Your task to perform on an android device: Open Google Chrome Image 0: 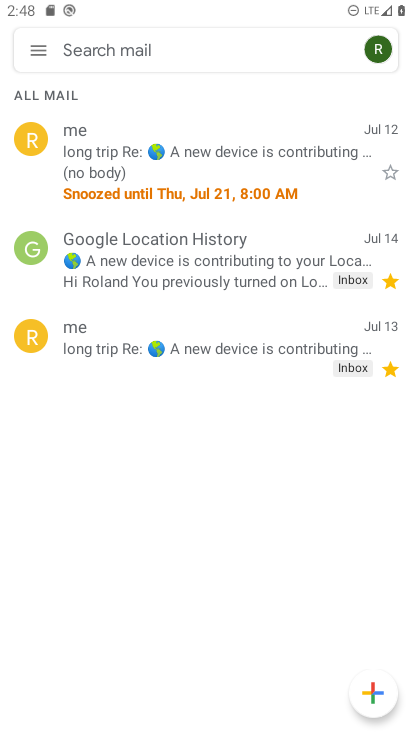
Step 0: press home button
Your task to perform on an android device: Open Google Chrome Image 1: 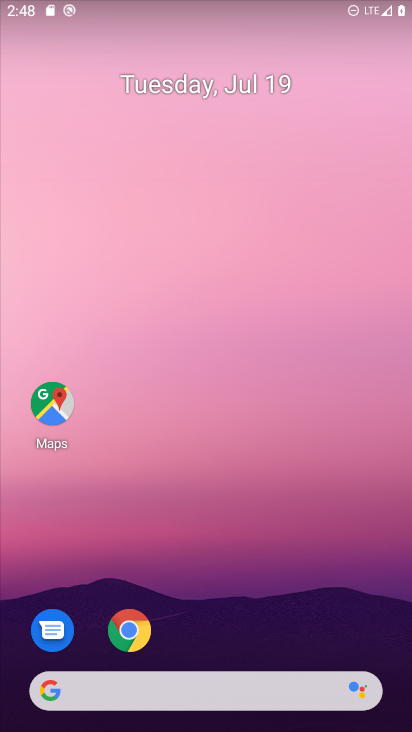
Step 1: click (128, 631)
Your task to perform on an android device: Open Google Chrome Image 2: 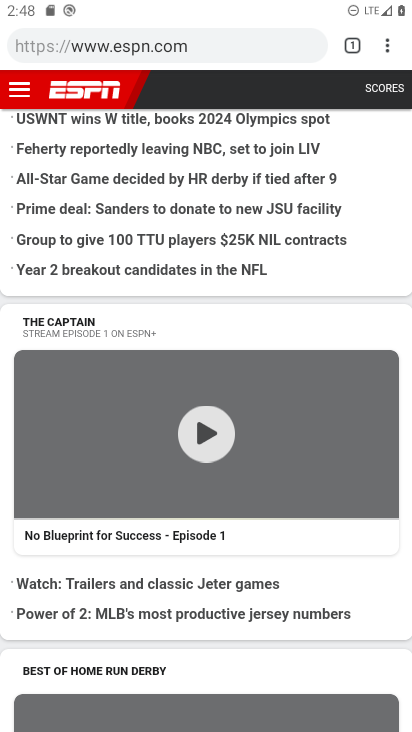
Step 2: task complete